Your task to perform on an android device: change keyboard looks Image 0: 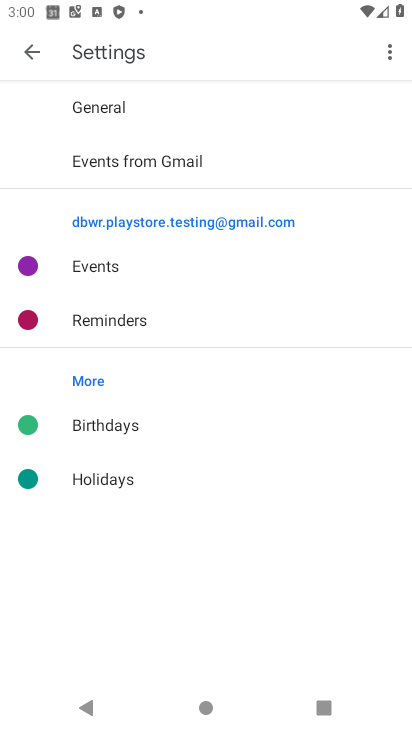
Step 0: press home button
Your task to perform on an android device: change keyboard looks Image 1: 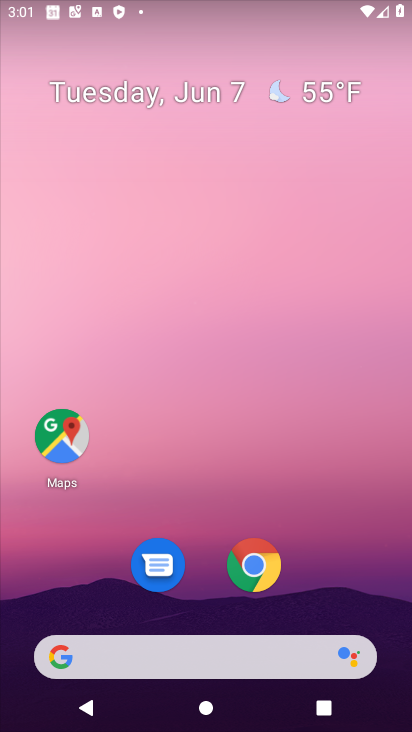
Step 1: drag from (276, 670) to (380, 120)
Your task to perform on an android device: change keyboard looks Image 2: 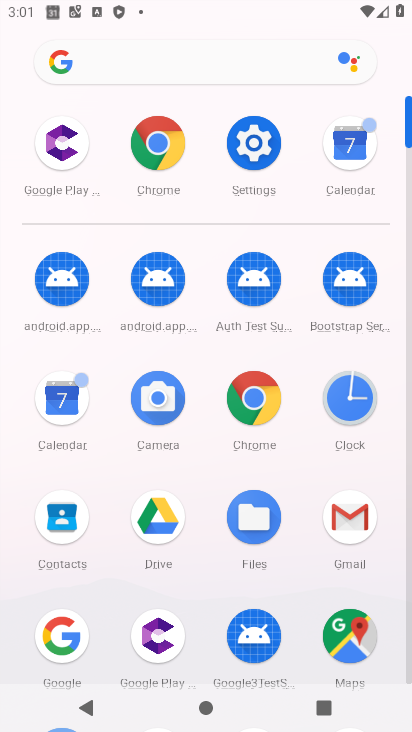
Step 2: click (247, 150)
Your task to perform on an android device: change keyboard looks Image 3: 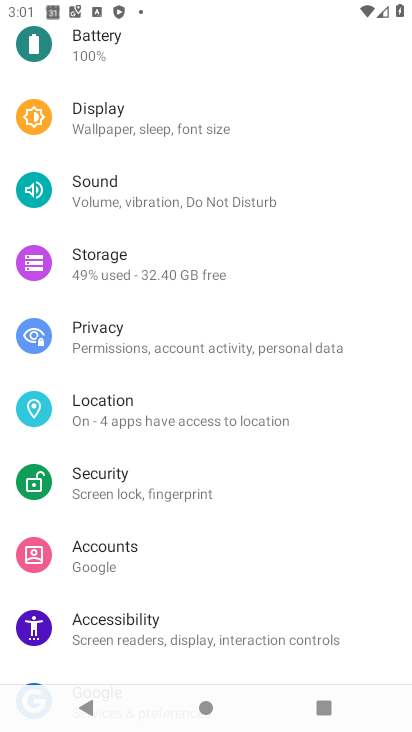
Step 3: drag from (222, 635) to (272, 281)
Your task to perform on an android device: change keyboard looks Image 4: 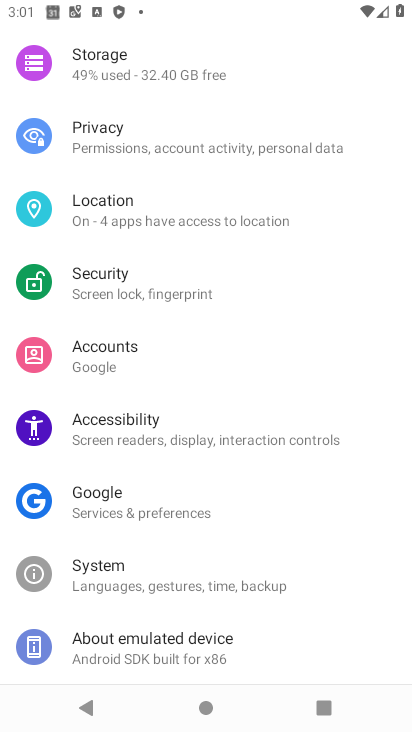
Step 4: click (163, 443)
Your task to perform on an android device: change keyboard looks Image 5: 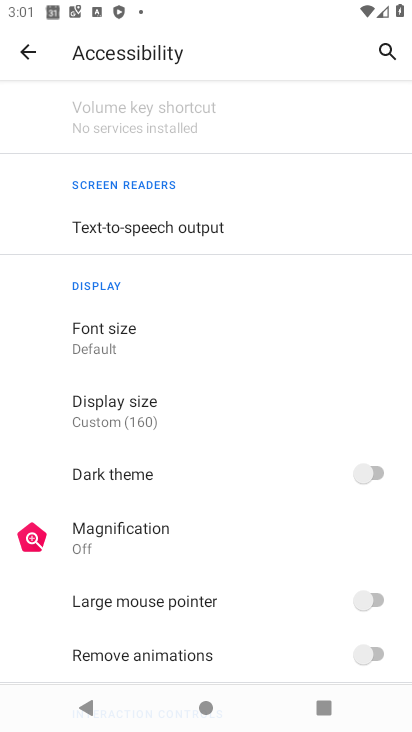
Step 5: press back button
Your task to perform on an android device: change keyboard looks Image 6: 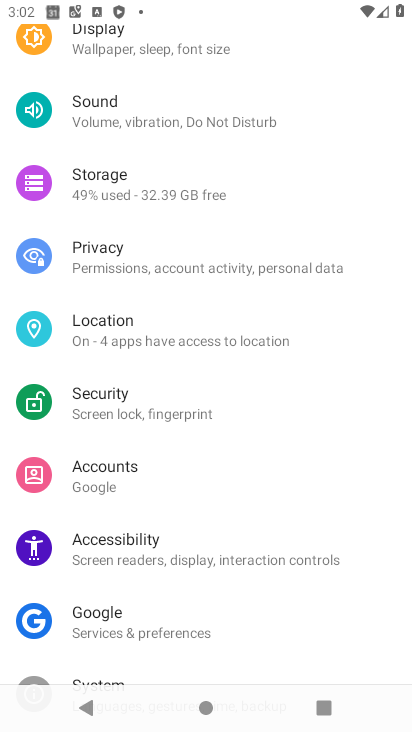
Step 6: drag from (208, 636) to (210, 201)
Your task to perform on an android device: change keyboard looks Image 7: 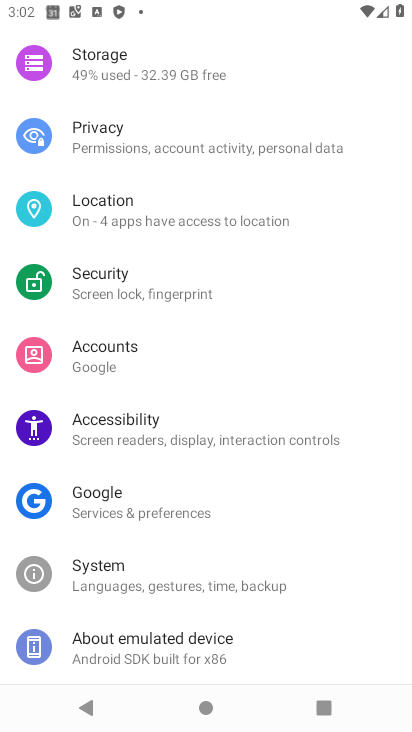
Step 7: click (156, 575)
Your task to perform on an android device: change keyboard looks Image 8: 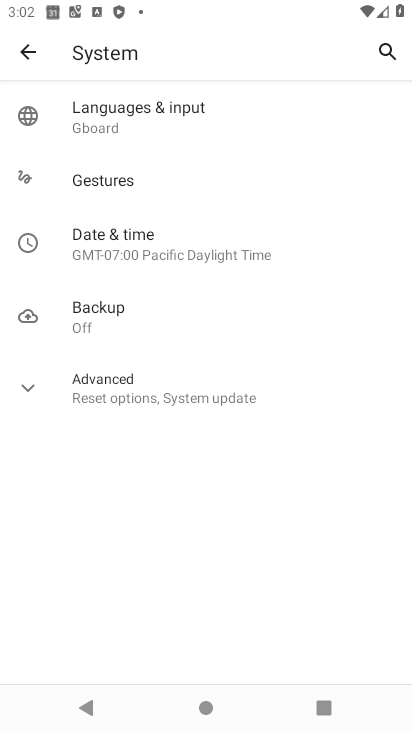
Step 8: click (185, 116)
Your task to perform on an android device: change keyboard looks Image 9: 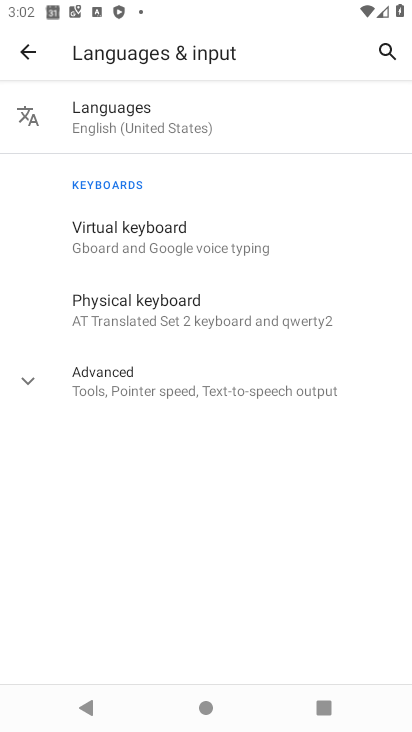
Step 9: click (228, 239)
Your task to perform on an android device: change keyboard looks Image 10: 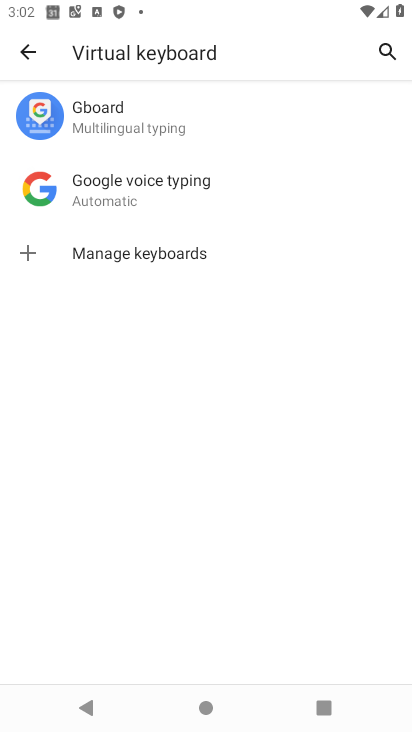
Step 10: click (118, 126)
Your task to perform on an android device: change keyboard looks Image 11: 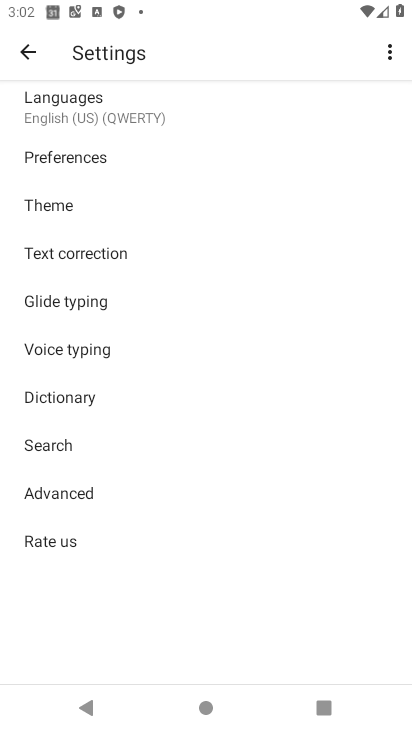
Step 11: click (87, 200)
Your task to perform on an android device: change keyboard looks Image 12: 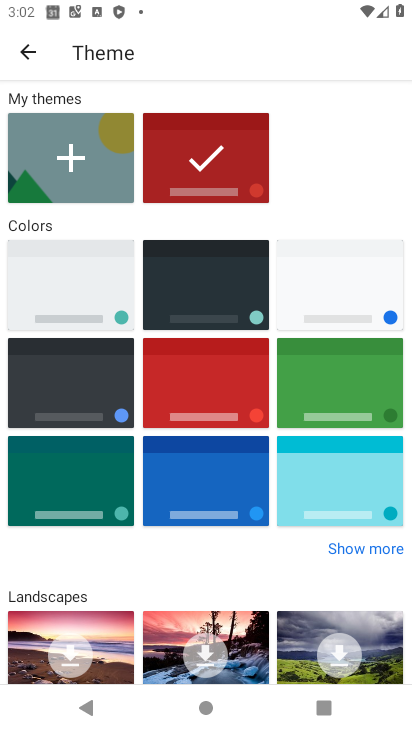
Step 12: click (239, 397)
Your task to perform on an android device: change keyboard looks Image 13: 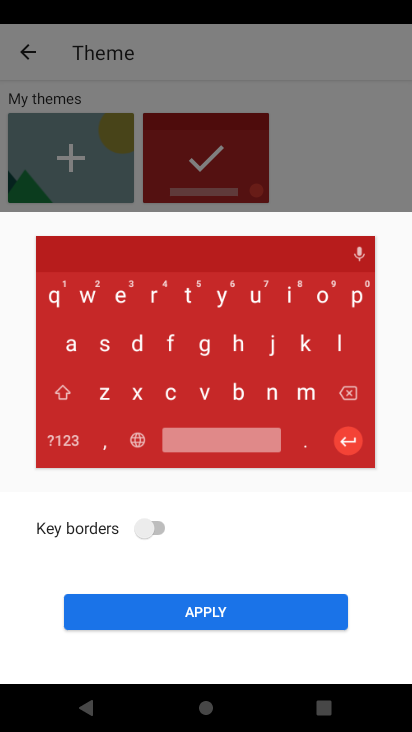
Step 13: click (163, 606)
Your task to perform on an android device: change keyboard looks Image 14: 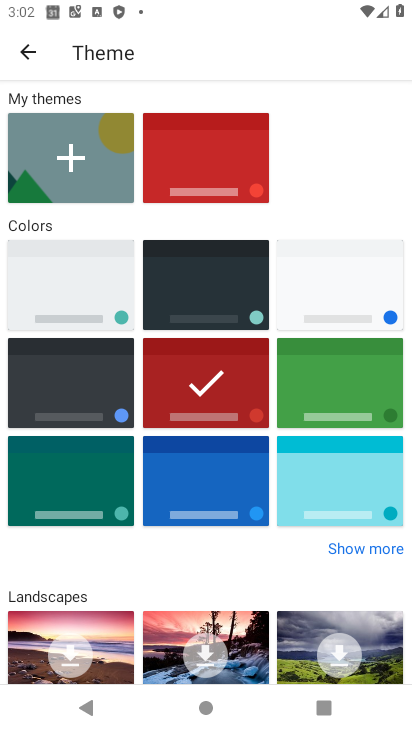
Step 14: task complete